Your task to perform on an android device: change timer sound Image 0: 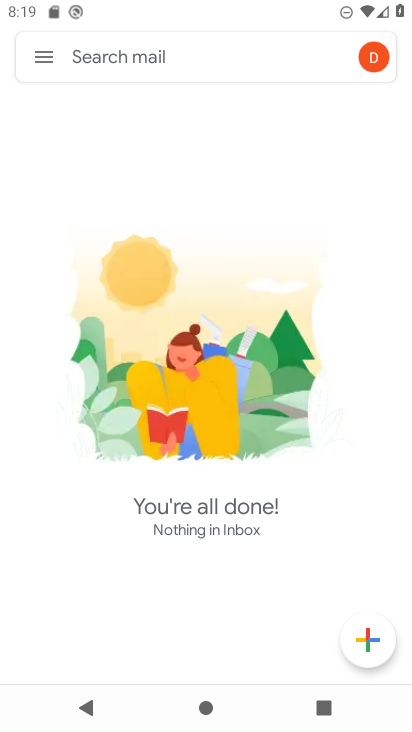
Step 0: click (150, 85)
Your task to perform on an android device: change timer sound Image 1: 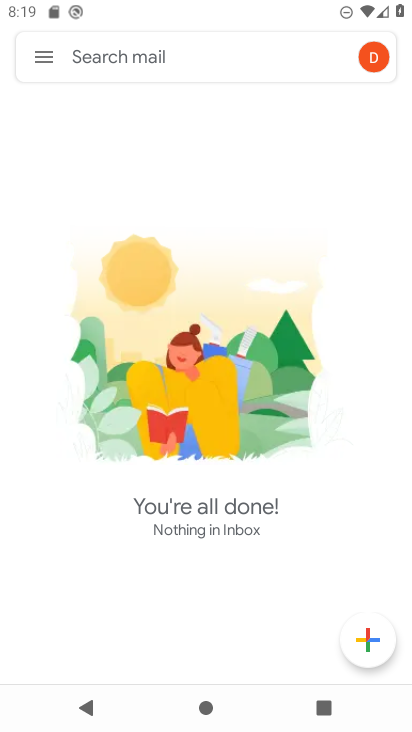
Step 1: press home button
Your task to perform on an android device: change timer sound Image 2: 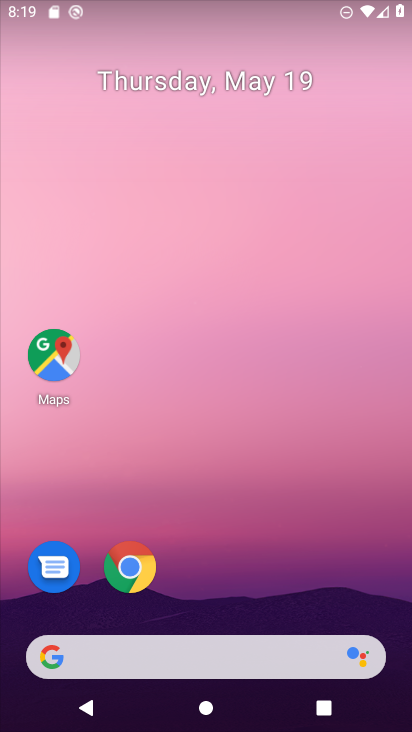
Step 2: drag from (227, 596) to (196, 47)
Your task to perform on an android device: change timer sound Image 3: 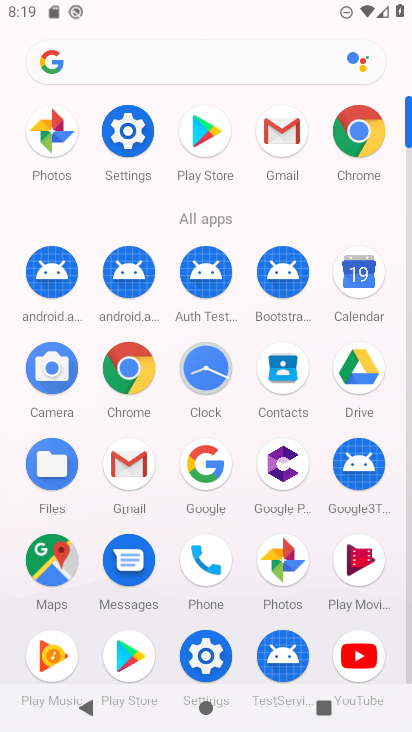
Step 3: click (132, 135)
Your task to perform on an android device: change timer sound Image 4: 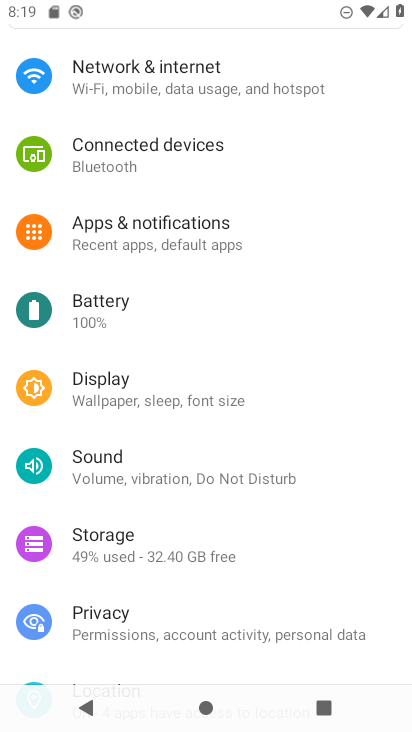
Step 4: click (186, 480)
Your task to perform on an android device: change timer sound Image 5: 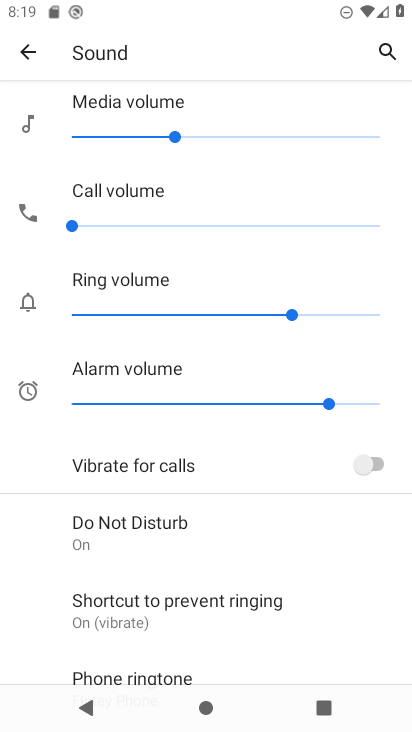
Step 5: task complete